Your task to perform on an android device: Go to location settings Image 0: 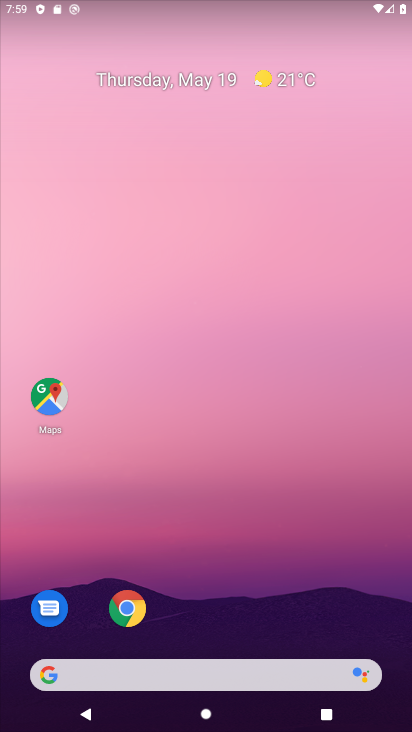
Step 0: drag from (253, 527) to (157, 24)
Your task to perform on an android device: Go to location settings Image 1: 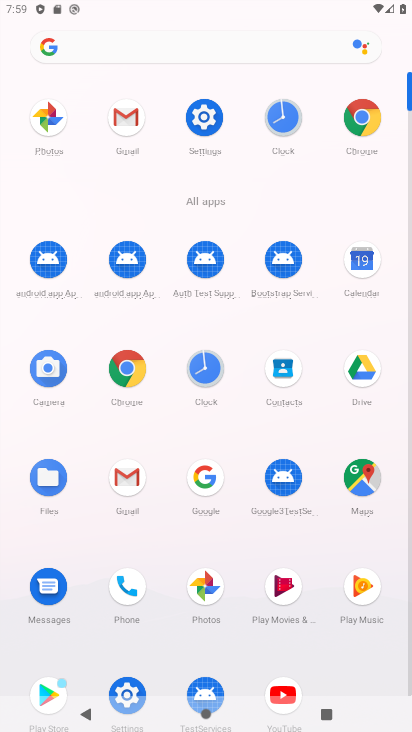
Step 1: click (203, 116)
Your task to perform on an android device: Go to location settings Image 2: 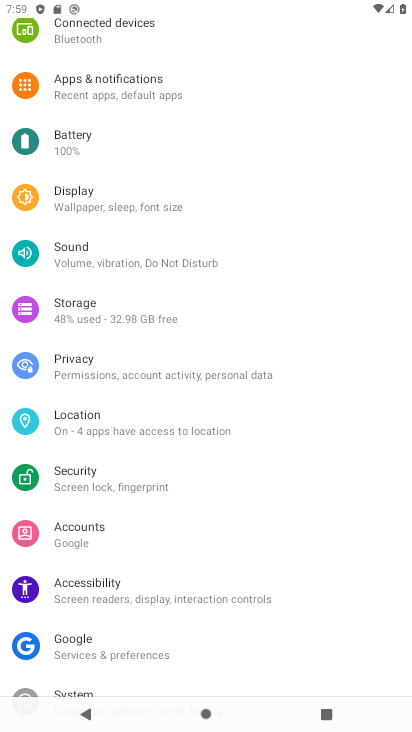
Step 2: click (79, 413)
Your task to perform on an android device: Go to location settings Image 3: 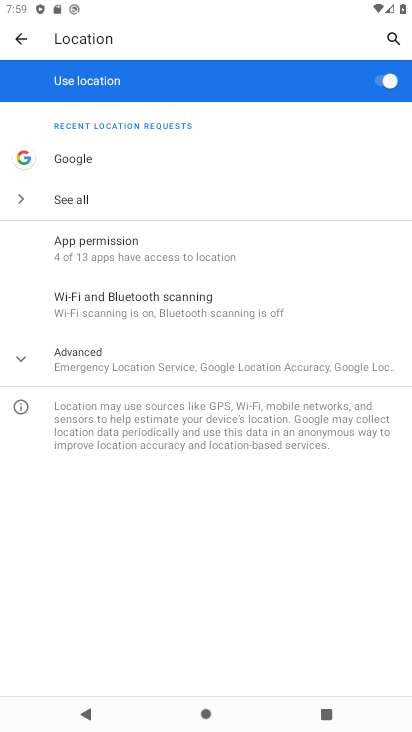
Step 3: task complete